Your task to perform on an android device: Go to privacy settings Image 0: 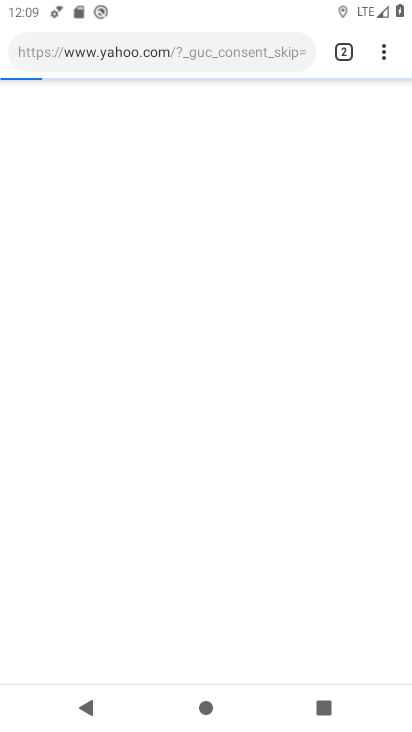
Step 0: press home button
Your task to perform on an android device: Go to privacy settings Image 1: 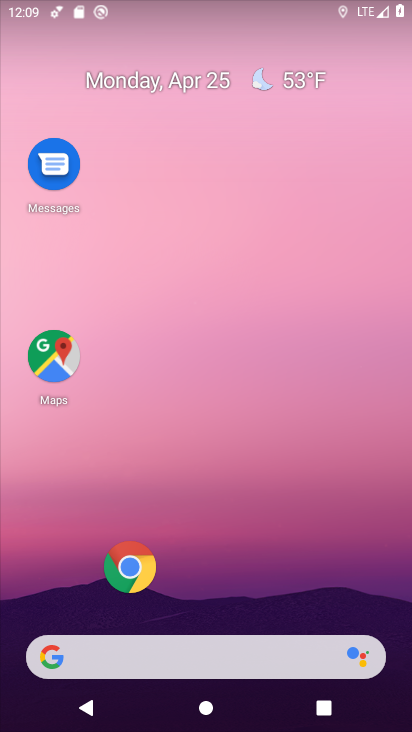
Step 1: drag from (245, 572) to (271, 45)
Your task to perform on an android device: Go to privacy settings Image 2: 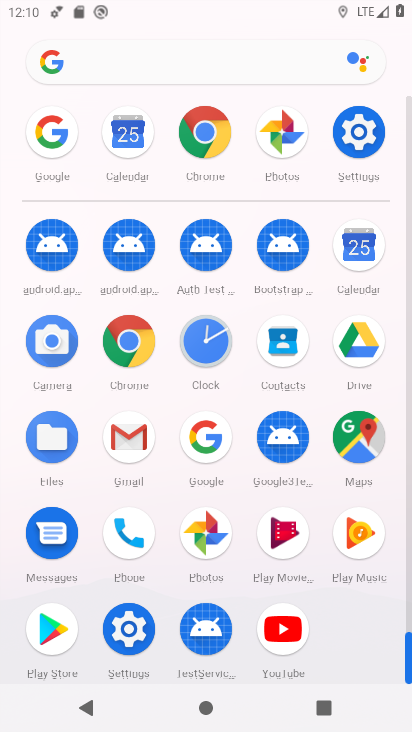
Step 2: click (374, 146)
Your task to perform on an android device: Go to privacy settings Image 3: 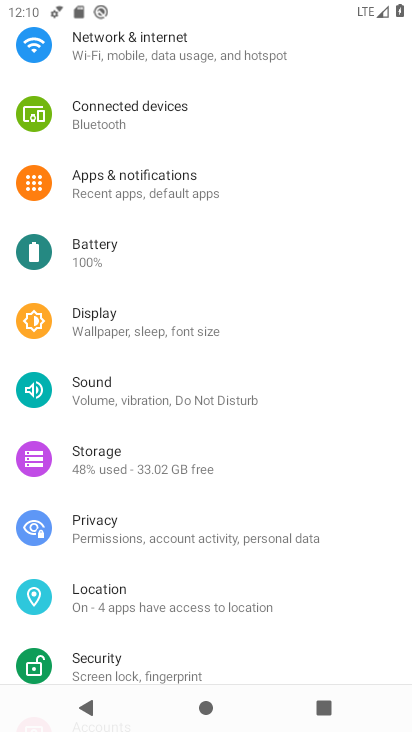
Step 3: click (140, 533)
Your task to perform on an android device: Go to privacy settings Image 4: 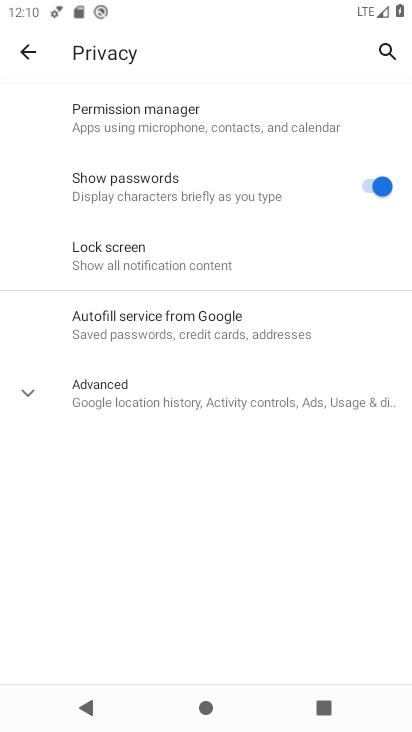
Step 4: task complete